Your task to perform on an android device: turn vacation reply on in the gmail app Image 0: 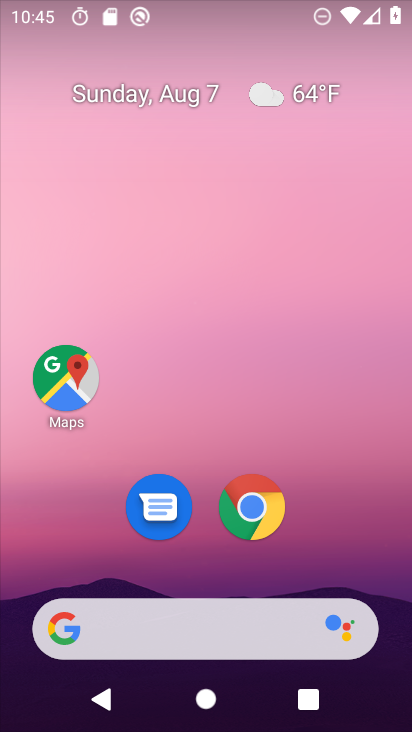
Step 0: drag from (358, 542) to (291, 79)
Your task to perform on an android device: turn vacation reply on in the gmail app Image 1: 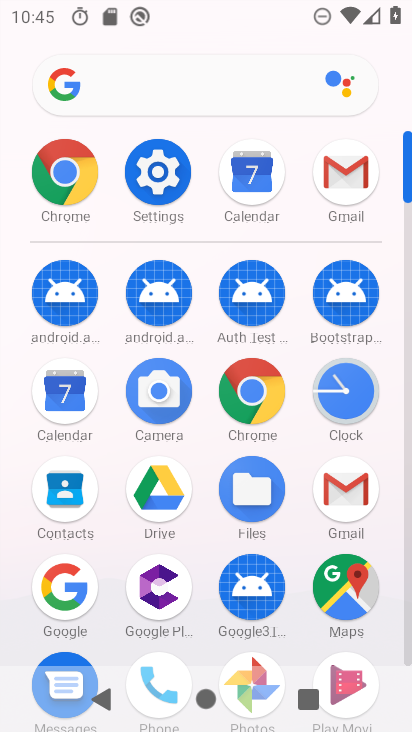
Step 1: click (357, 480)
Your task to perform on an android device: turn vacation reply on in the gmail app Image 2: 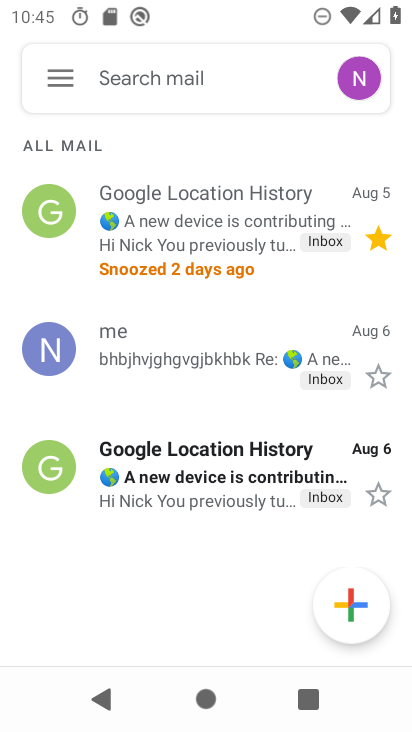
Step 2: click (54, 72)
Your task to perform on an android device: turn vacation reply on in the gmail app Image 3: 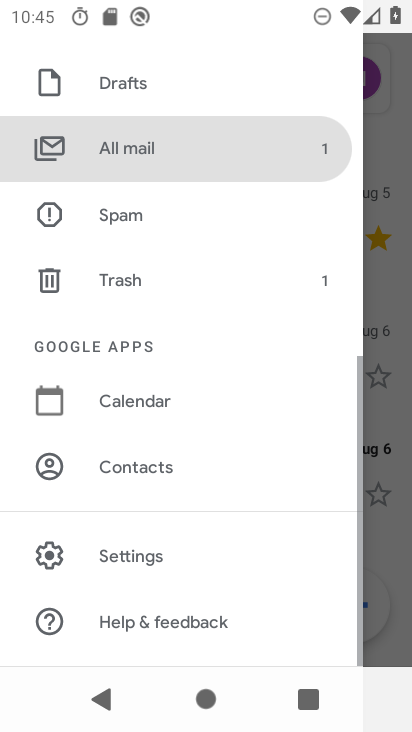
Step 3: drag from (169, 584) to (243, 136)
Your task to perform on an android device: turn vacation reply on in the gmail app Image 4: 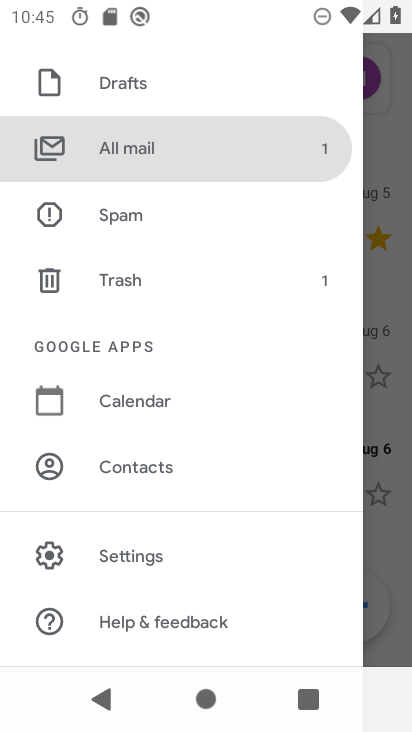
Step 4: click (123, 561)
Your task to perform on an android device: turn vacation reply on in the gmail app Image 5: 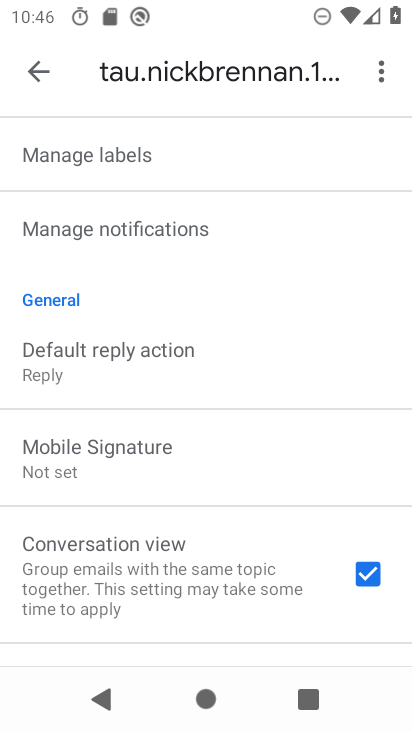
Step 5: drag from (204, 515) to (297, 93)
Your task to perform on an android device: turn vacation reply on in the gmail app Image 6: 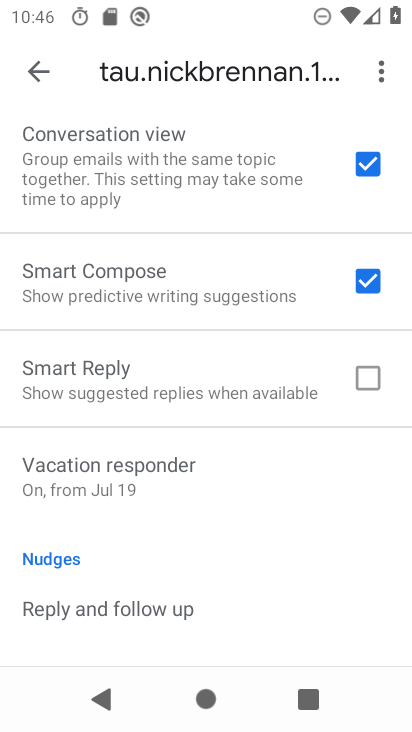
Step 6: click (197, 477)
Your task to perform on an android device: turn vacation reply on in the gmail app Image 7: 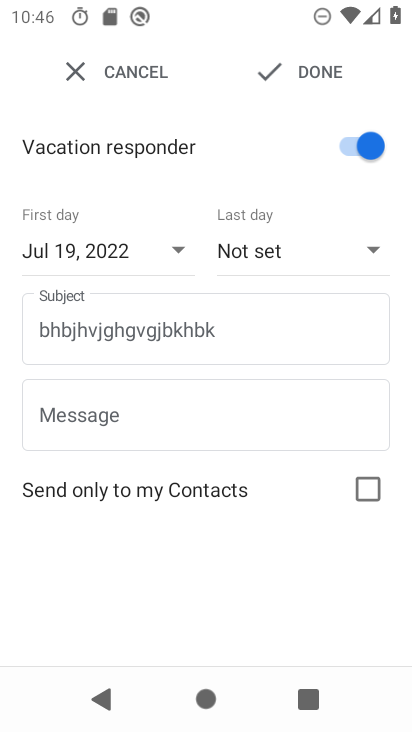
Step 7: task complete